Your task to perform on an android device: Go to Yahoo.com Image 0: 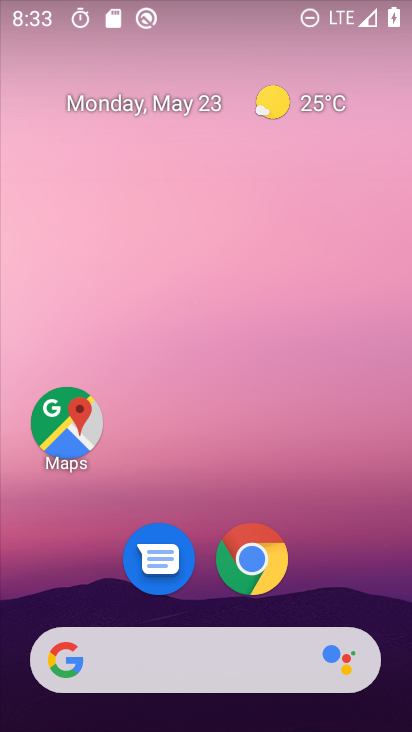
Step 0: drag from (386, 644) to (378, 54)
Your task to perform on an android device: Go to Yahoo.com Image 1: 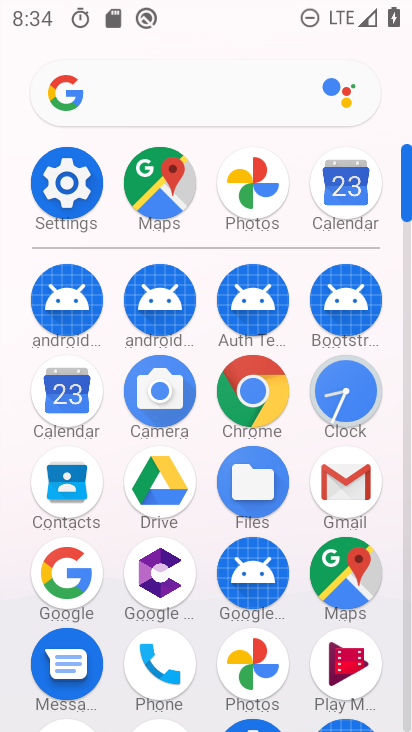
Step 1: click (260, 398)
Your task to perform on an android device: Go to Yahoo.com Image 2: 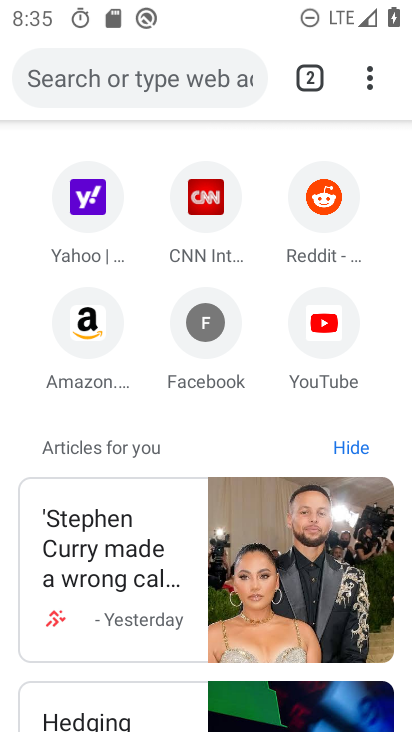
Step 2: click (66, 195)
Your task to perform on an android device: Go to Yahoo.com Image 3: 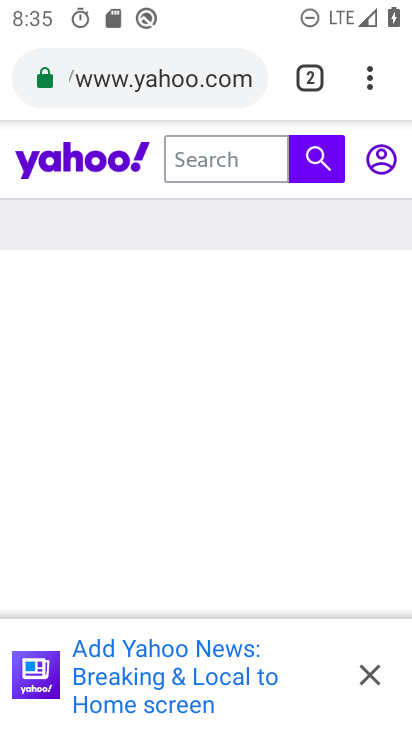
Step 3: task complete